Your task to perform on an android device: Go to Google maps Image 0: 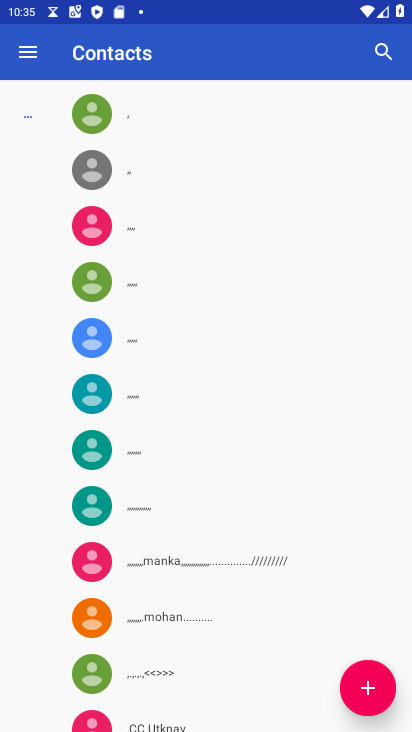
Step 0: press back button
Your task to perform on an android device: Go to Google maps Image 1: 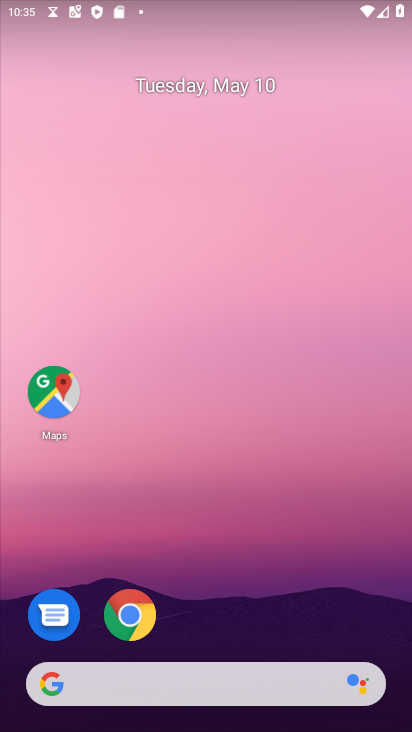
Step 1: click (55, 395)
Your task to perform on an android device: Go to Google maps Image 2: 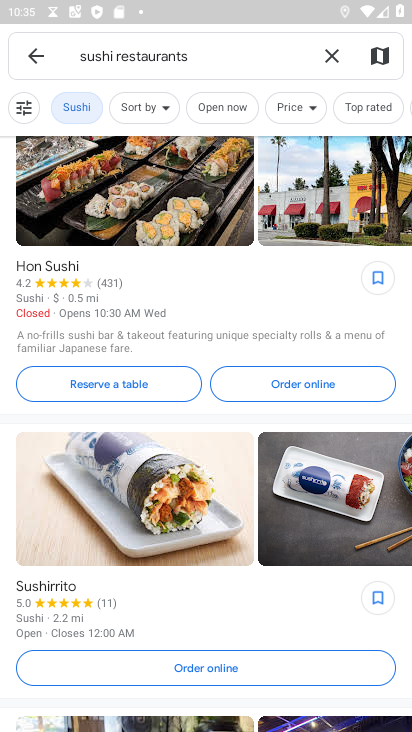
Step 2: click (328, 49)
Your task to perform on an android device: Go to Google maps Image 3: 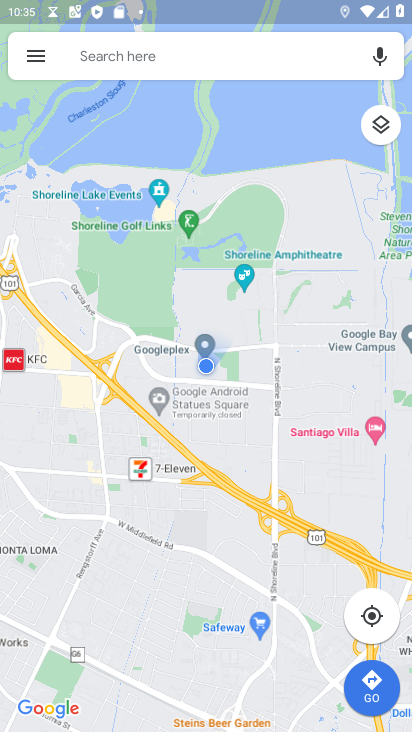
Step 3: task complete